Your task to perform on an android device: turn on the 24-hour format for clock Image 0: 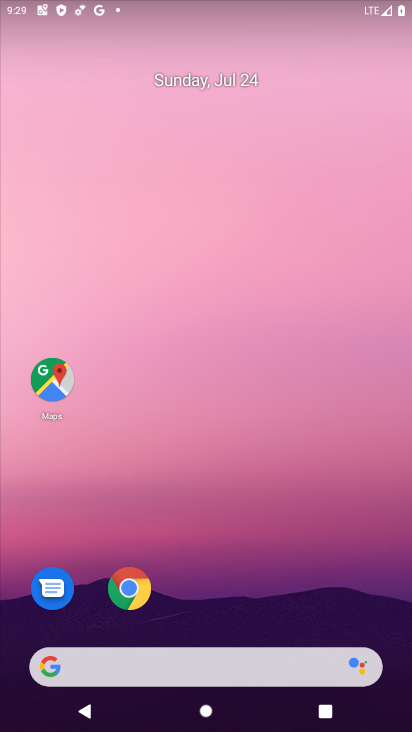
Step 0: drag from (234, 648) to (222, 217)
Your task to perform on an android device: turn on the 24-hour format for clock Image 1: 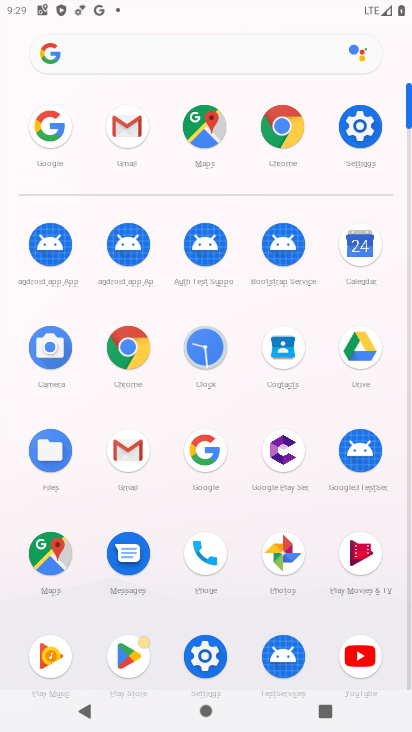
Step 1: click (377, 115)
Your task to perform on an android device: turn on the 24-hour format for clock Image 2: 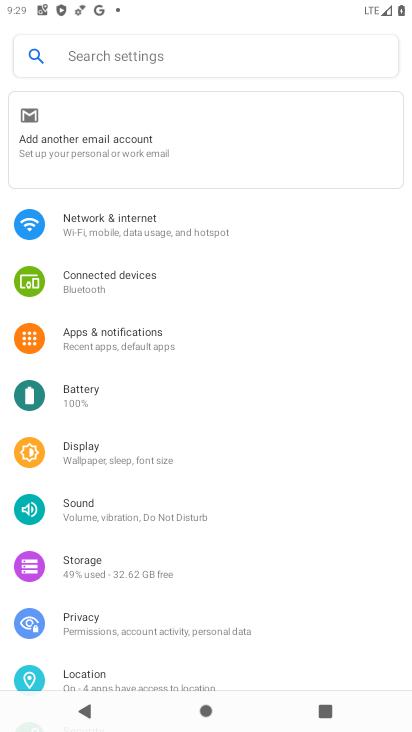
Step 2: drag from (149, 530) to (159, 58)
Your task to perform on an android device: turn on the 24-hour format for clock Image 3: 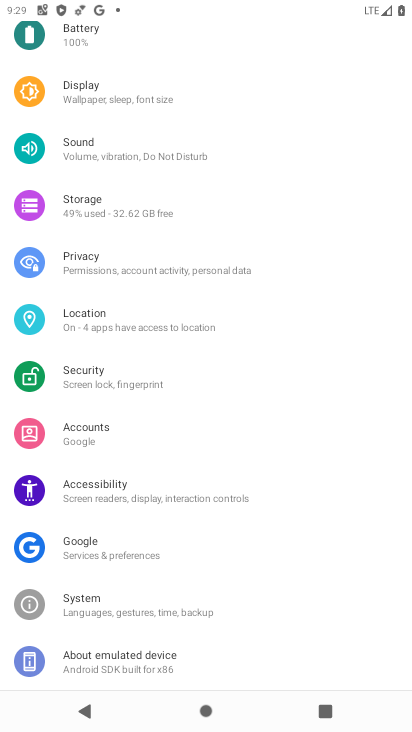
Step 3: drag from (207, 590) to (207, 116)
Your task to perform on an android device: turn on the 24-hour format for clock Image 4: 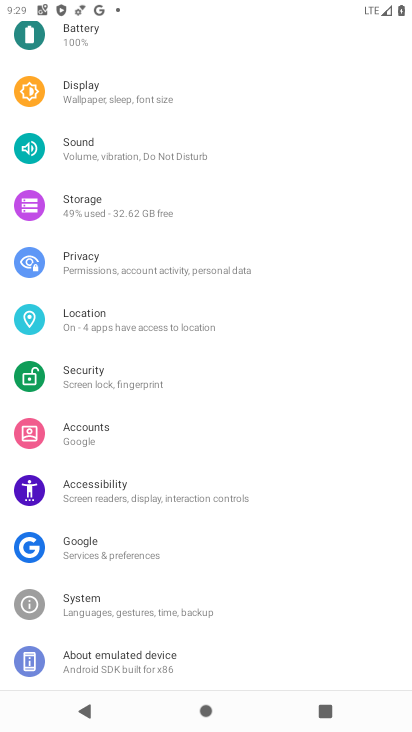
Step 4: click (92, 606)
Your task to perform on an android device: turn on the 24-hour format for clock Image 5: 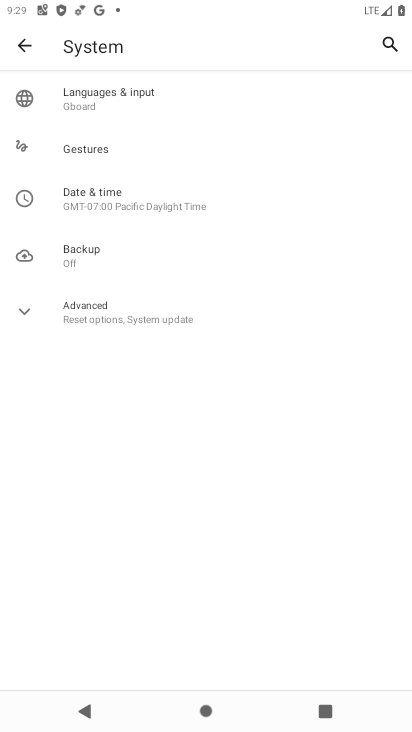
Step 5: click (119, 212)
Your task to perform on an android device: turn on the 24-hour format for clock Image 6: 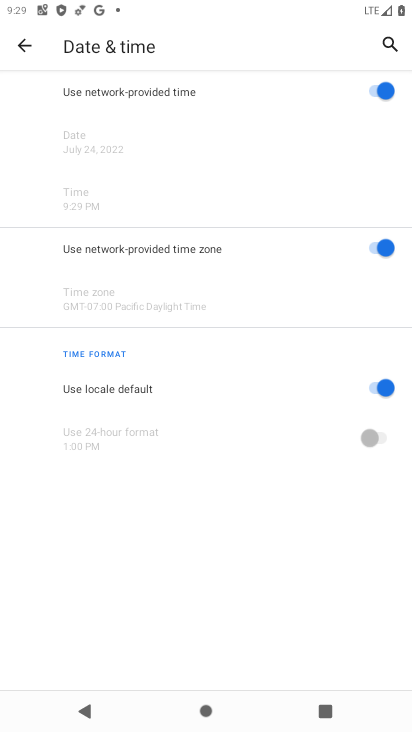
Step 6: click (374, 390)
Your task to perform on an android device: turn on the 24-hour format for clock Image 7: 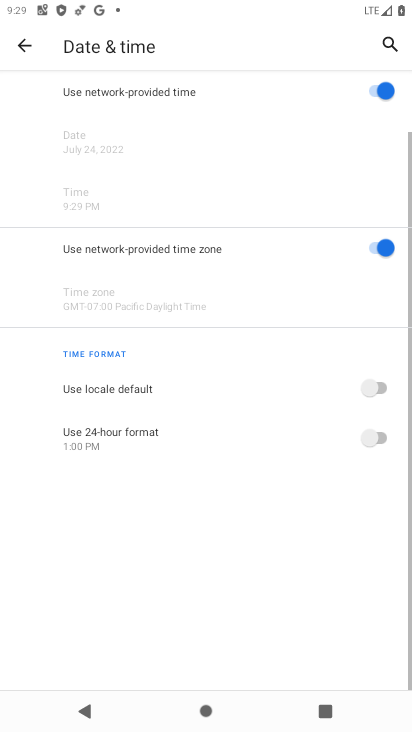
Step 7: click (376, 440)
Your task to perform on an android device: turn on the 24-hour format for clock Image 8: 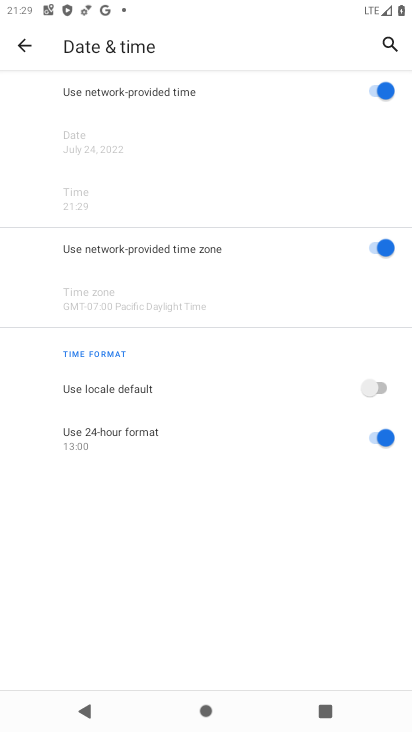
Step 8: task complete